Your task to perform on an android device: stop showing notifications on the lock screen Image 0: 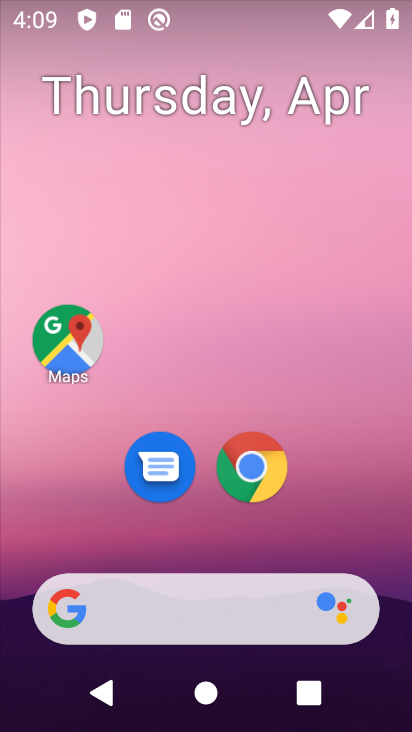
Step 0: drag from (219, 460) to (323, 43)
Your task to perform on an android device: stop showing notifications on the lock screen Image 1: 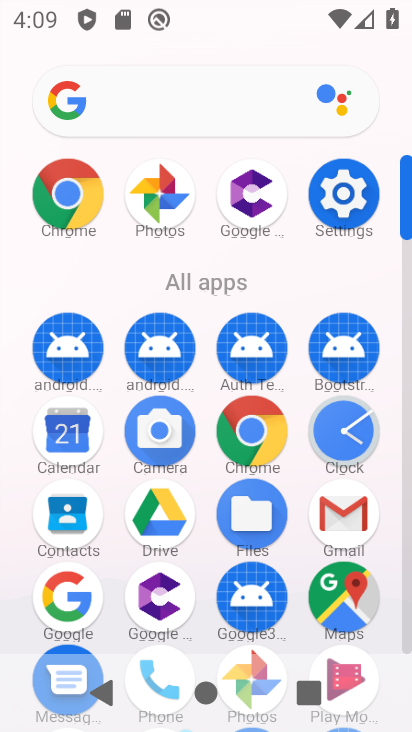
Step 1: drag from (210, 548) to (283, 159)
Your task to perform on an android device: stop showing notifications on the lock screen Image 2: 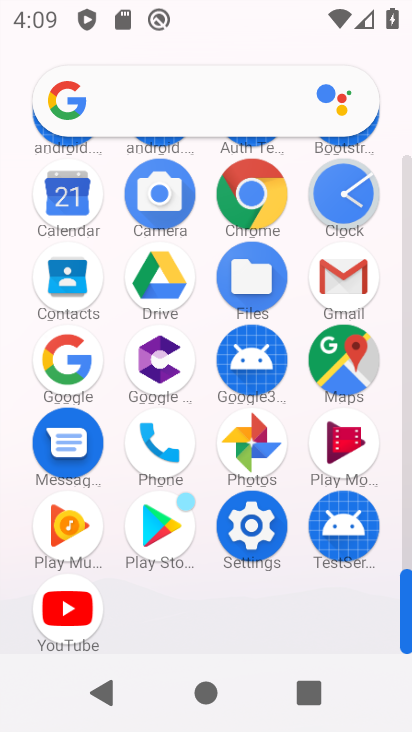
Step 2: click (261, 541)
Your task to perform on an android device: stop showing notifications on the lock screen Image 3: 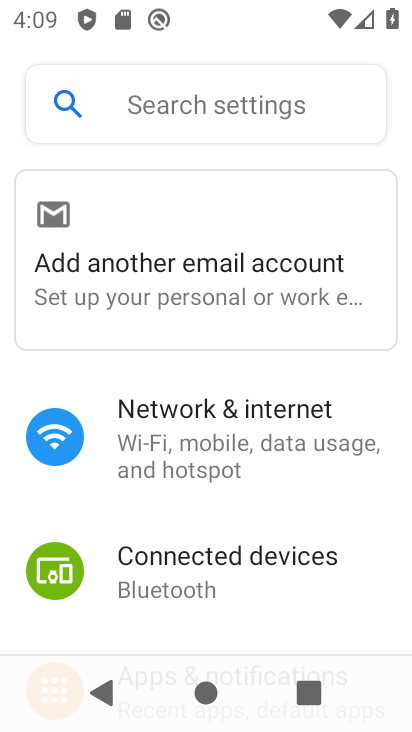
Step 3: drag from (201, 577) to (265, 295)
Your task to perform on an android device: stop showing notifications on the lock screen Image 4: 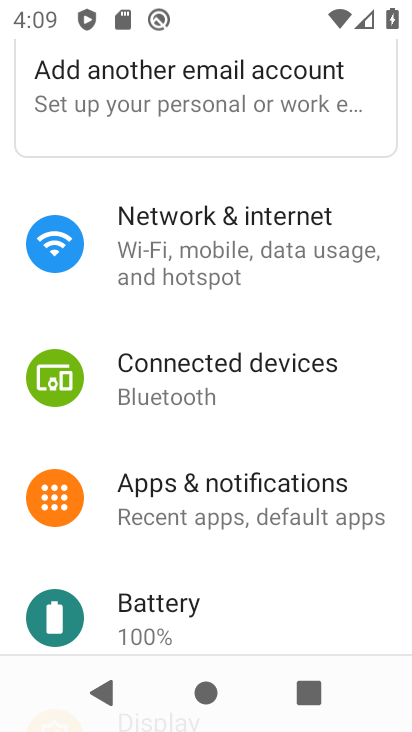
Step 4: click (179, 501)
Your task to perform on an android device: stop showing notifications on the lock screen Image 5: 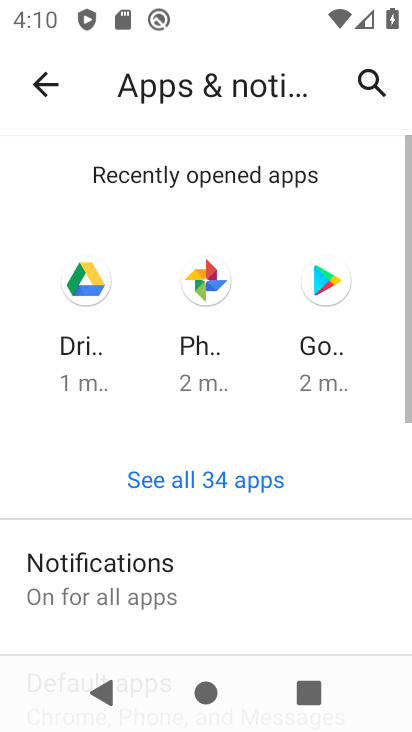
Step 5: drag from (174, 554) to (244, 248)
Your task to perform on an android device: stop showing notifications on the lock screen Image 6: 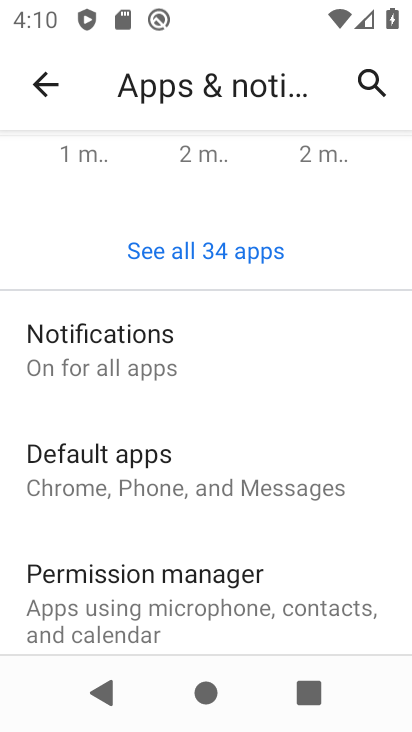
Step 6: click (169, 332)
Your task to perform on an android device: stop showing notifications on the lock screen Image 7: 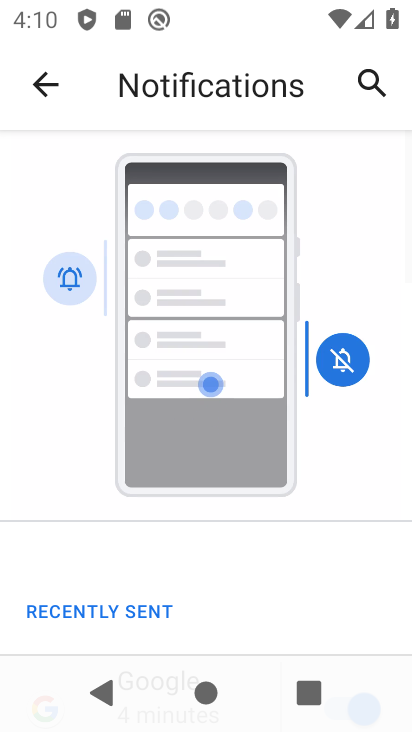
Step 7: drag from (179, 556) to (288, 132)
Your task to perform on an android device: stop showing notifications on the lock screen Image 8: 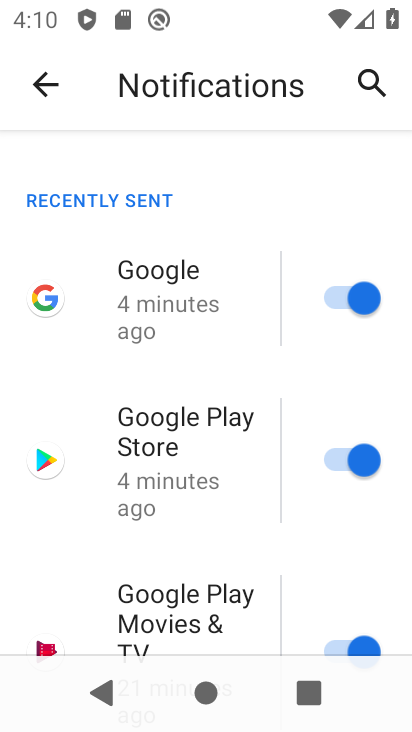
Step 8: drag from (178, 518) to (281, 84)
Your task to perform on an android device: stop showing notifications on the lock screen Image 9: 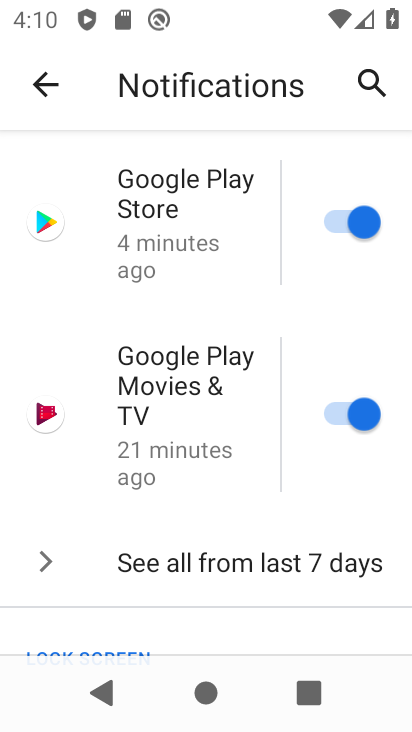
Step 9: drag from (171, 549) to (253, 190)
Your task to perform on an android device: stop showing notifications on the lock screen Image 10: 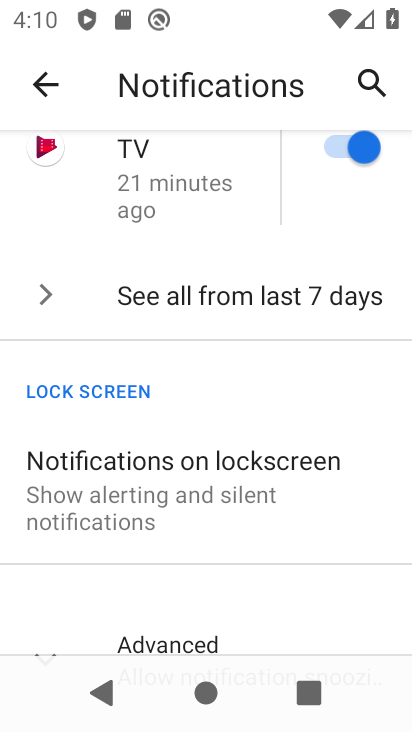
Step 10: click (141, 463)
Your task to perform on an android device: stop showing notifications on the lock screen Image 11: 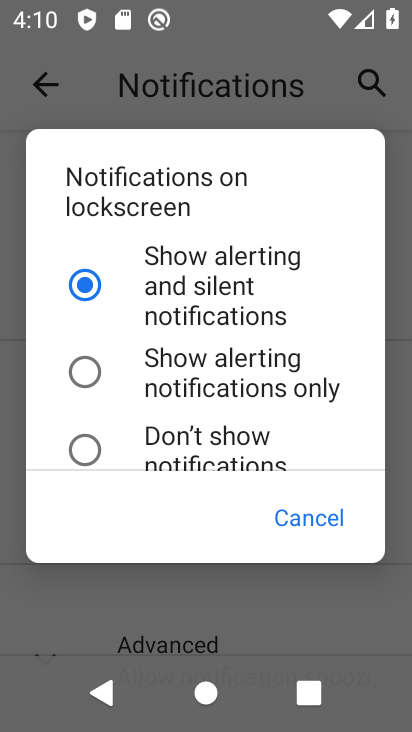
Step 11: click (132, 443)
Your task to perform on an android device: stop showing notifications on the lock screen Image 12: 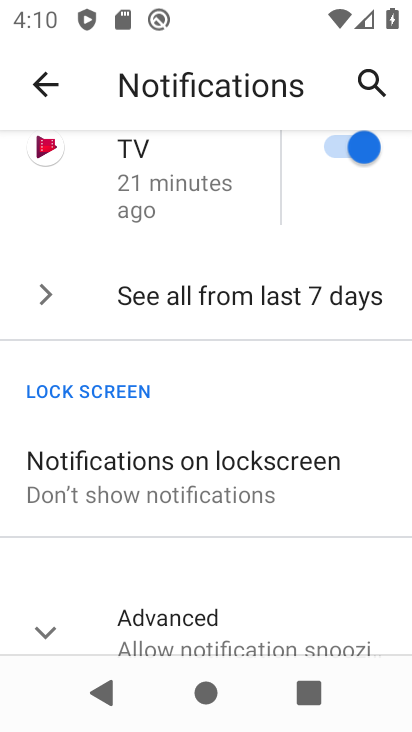
Step 12: task complete